Your task to perform on an android device: toggle data saver in the chrome app Image 0: 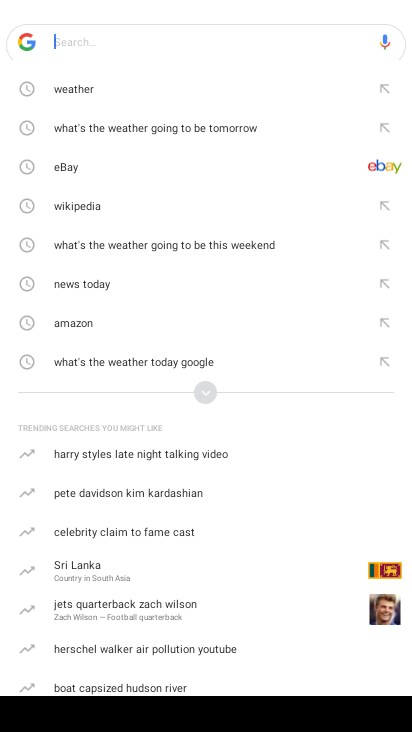
Step 0: press home button
Your task to perform on an android device: toggle data saver in the chrome app Image 1: 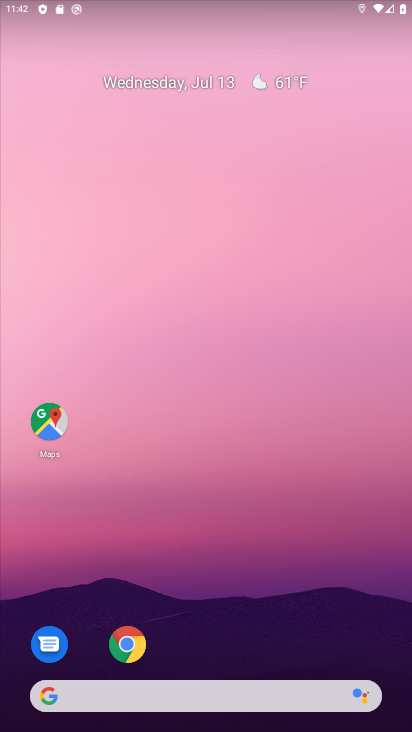
Step 1: drag from (227, 645) to (266, 133)
Your task to perform on an android device: toggle data saver in the chrome app Image 2: 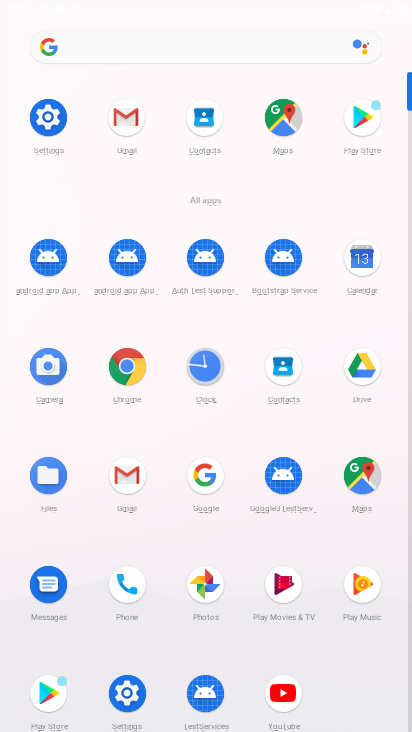
Step 2: click (127, 371)
Your task to perform on an android device: toggle data saver in the chrome app Image 3: 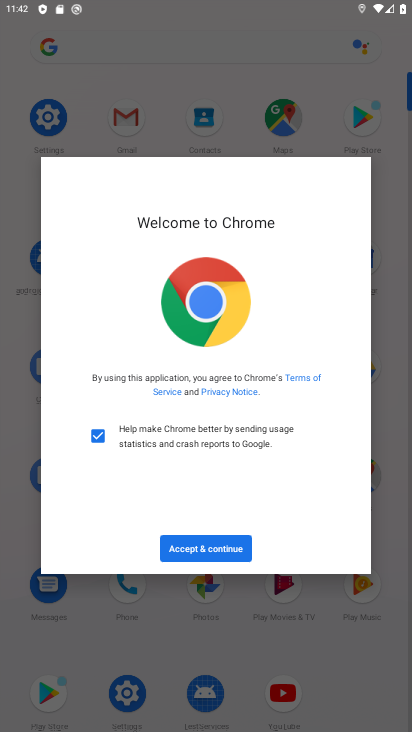
Step 3: click (219, 554)
Your task to perform on an android device: toggle data saver in the chrome app Image 4: 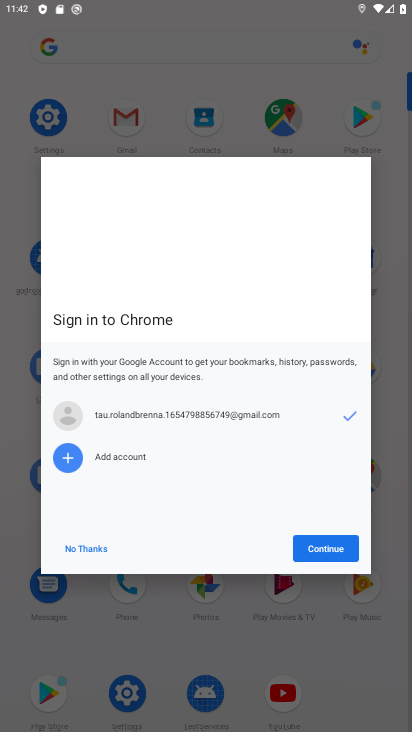
Step 4: click (316, 548)
Your task to perform on an android device: toggle data saver in the chrome app Image 5: 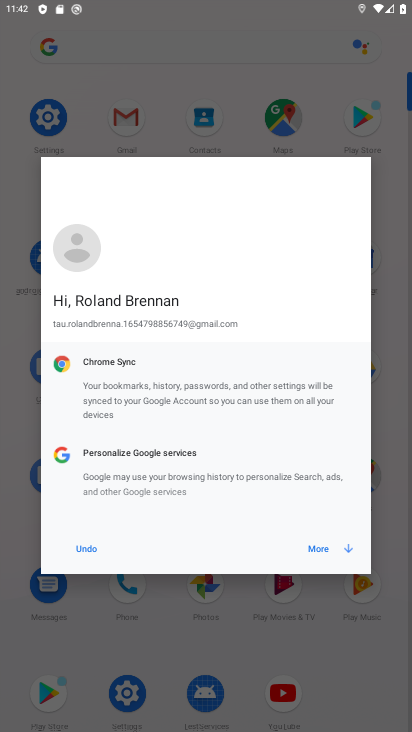
Step 5: click (299, 539)
Your task to perform on an android device: toggle data saver in the chrome app Image 6: 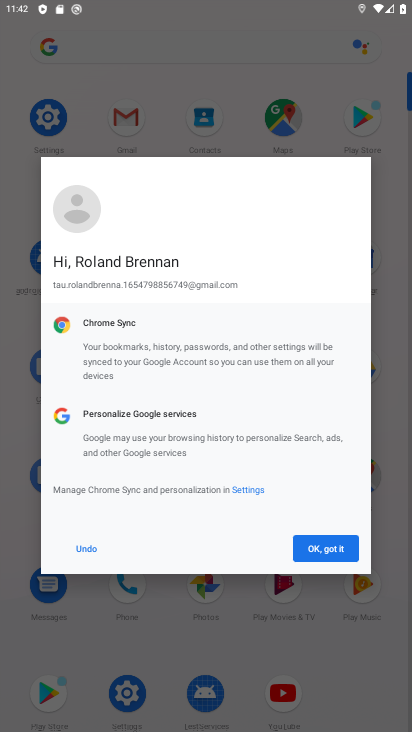
Step 6: click (316, 551)
Your task to perform on an android device: toggle data saver in the chrome app Image 7: 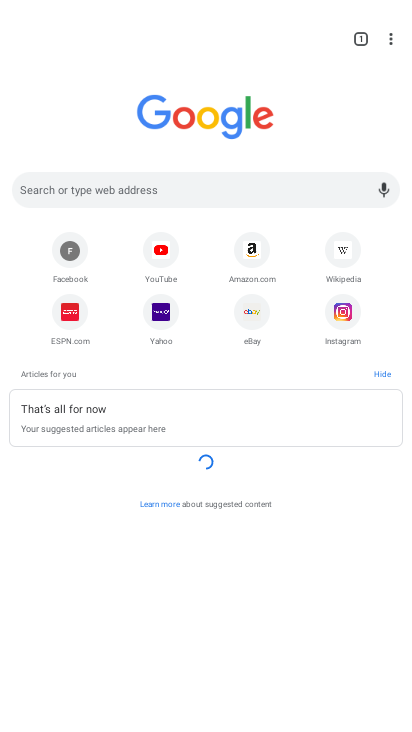
Step 7: click (387, 42)
Your task to perform on an android device: toggle data saver in the chrome app Image 8: 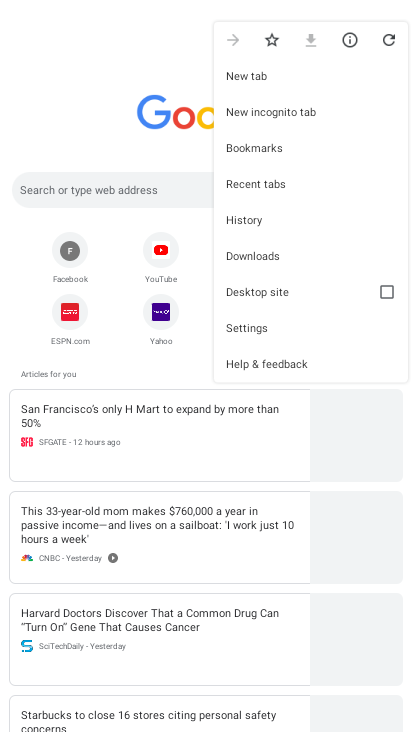
Step 8: click (265, 319)
Your task to perform on an android device: toggle data saver in the chrome app Image 9: 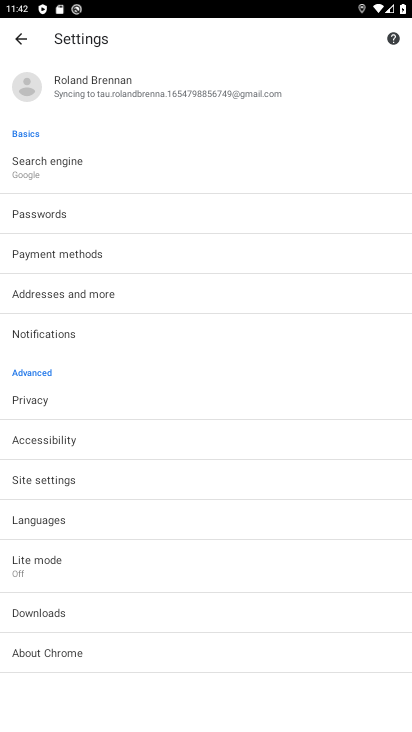
Step 9: click (47, 567)
Your task to perform on an android device: toggle data saver in the chrome app Image 10: 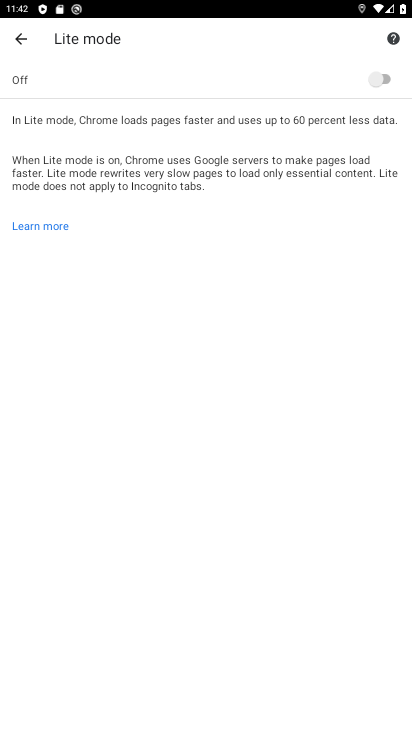
Step 10: click (383, 74)
Your task to perform on an android device: toggle data saver in the chrome app Image 11: 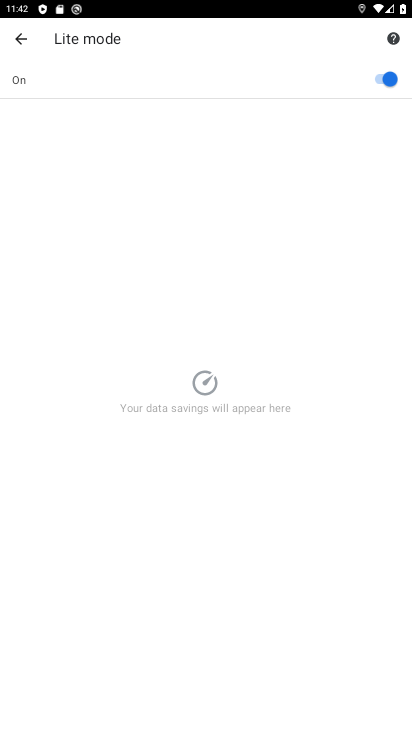
Step 11: task complete